Your task to perform on an android device: Go to battery settings Image 0: 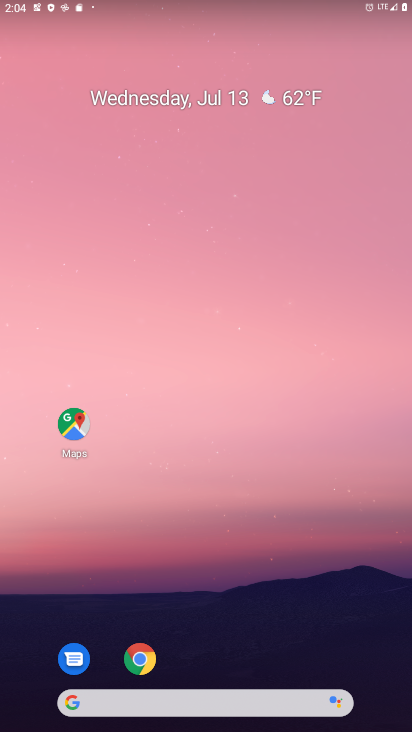
Step 0: drag from (210, 723) to (210, 194)
Your task to perform on an android device: Go to battery settings Image 1: 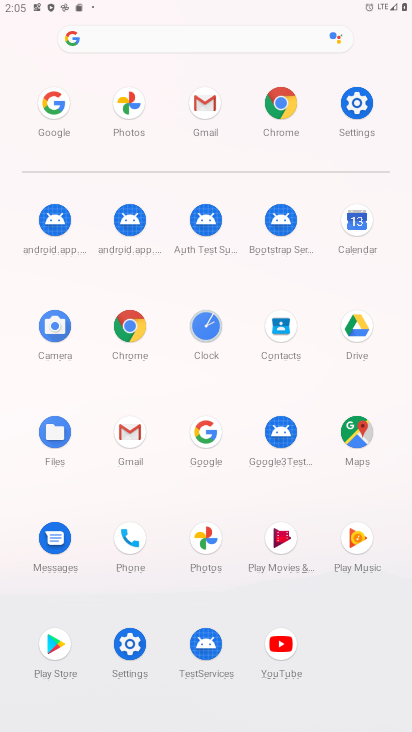
Step 1: click (356, 100)
Your task to perform on an android device: Go to battery settings Image 2: 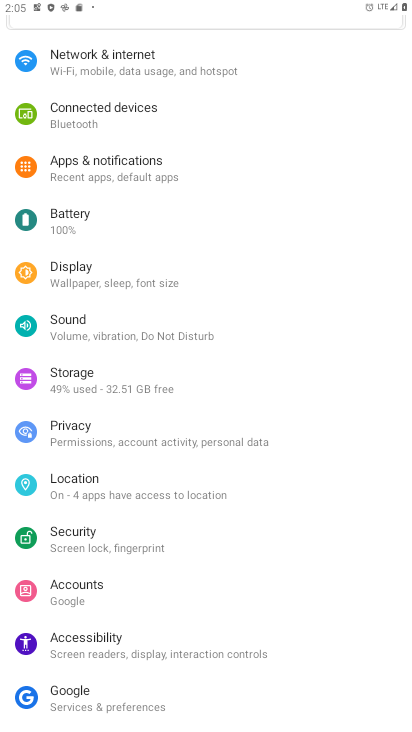
Step 2: click (65, 212)
Your task to perform on an android device: Go to battery settings Image 3: 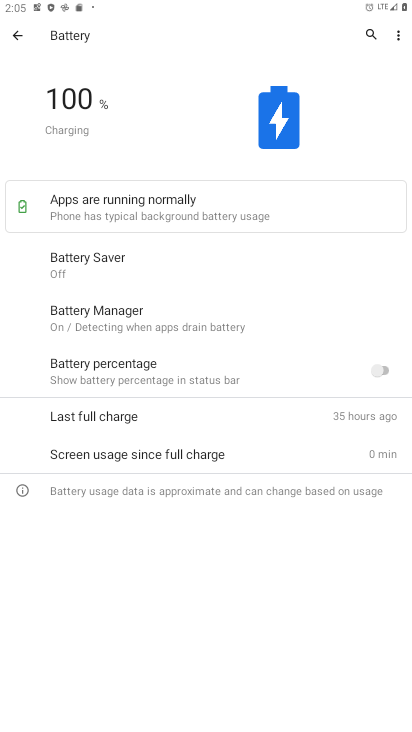
Step 3: task complete